Your task to perform on an android device: turn pop-ups on in chrome Image 0: 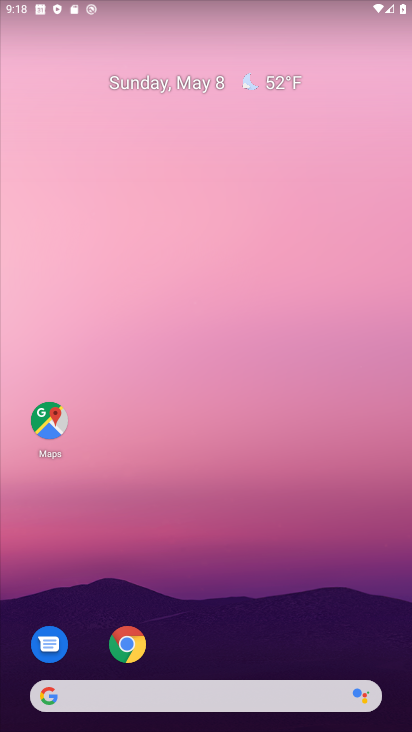
Step 0: drag from (188, 659) to (250, 233)
Your task to perform on an android device: turn pop-ups on in chrome Image 1: 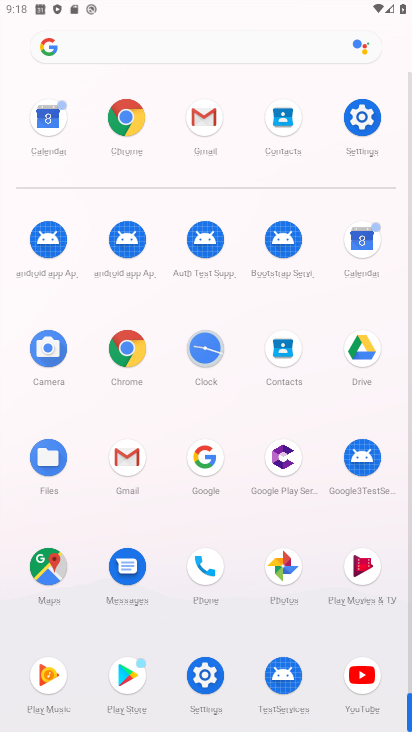
Step 1: drag from (232, 682) to (237, 231)
Your task to perform on an android device: turn pop-ups on in chrome Image 2: 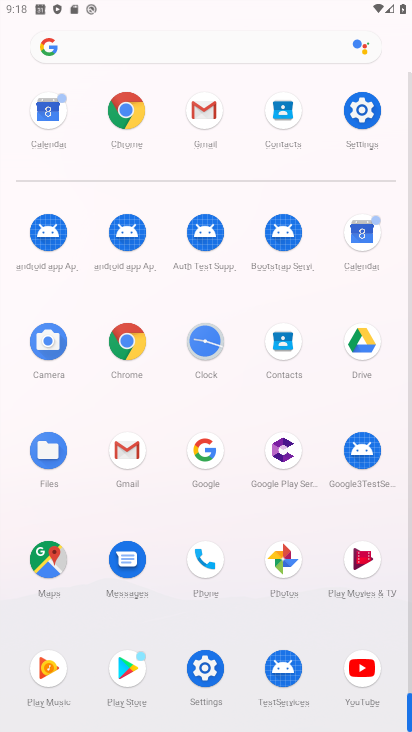
Step 2: drag from (151, 671) to (171, 291)
Your task to perform on an android device: turn pop-ups on in chrome Image 3: 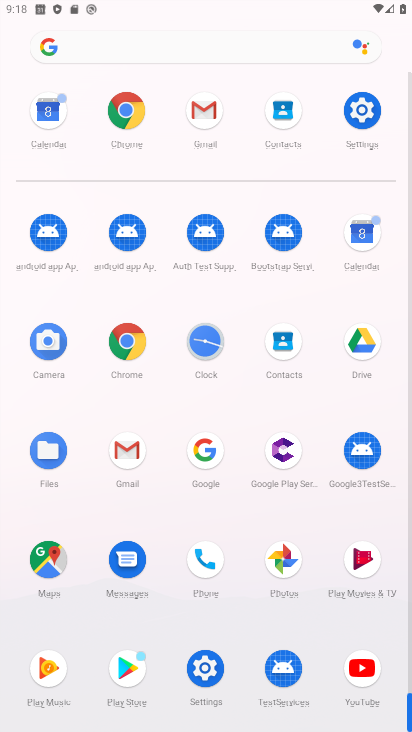
Step 3: click (132, 349)
Your task to perform on an android device: turn pop-ups on in chrome Image 4: 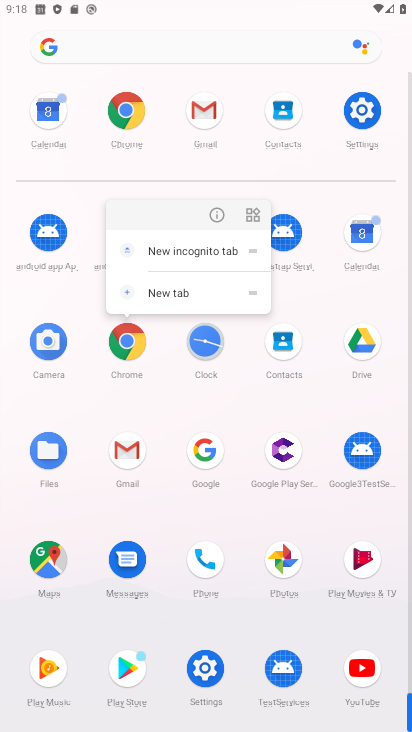
Step 4: click (219, 211)
Your task to perform on an android device: turn pop-ups on in chrome Image 5: 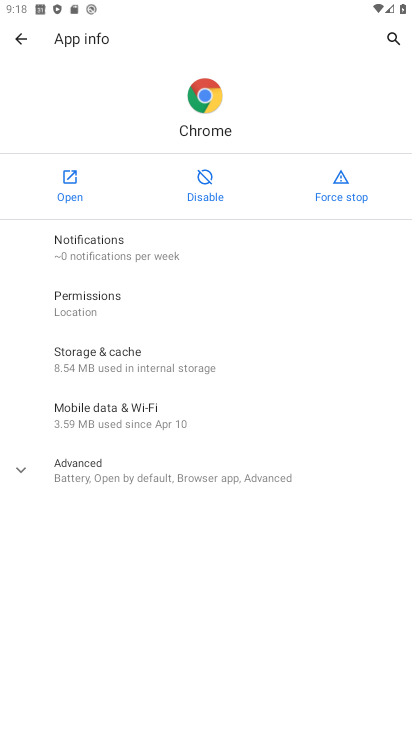
Step 5: click (70, 193)
Your task to perform on an android device: turn pop-ups on in chrome Image 6: 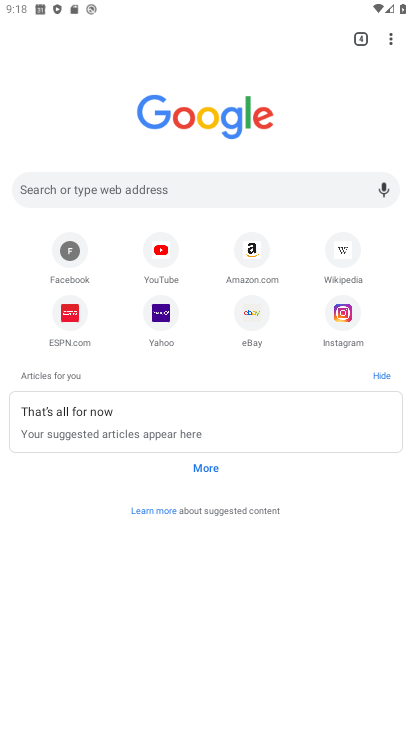
Step 6: drag from (390, 36) to (276, 372)
Your task to perform on an android device: turn pop-ups on in chrome Image 7: 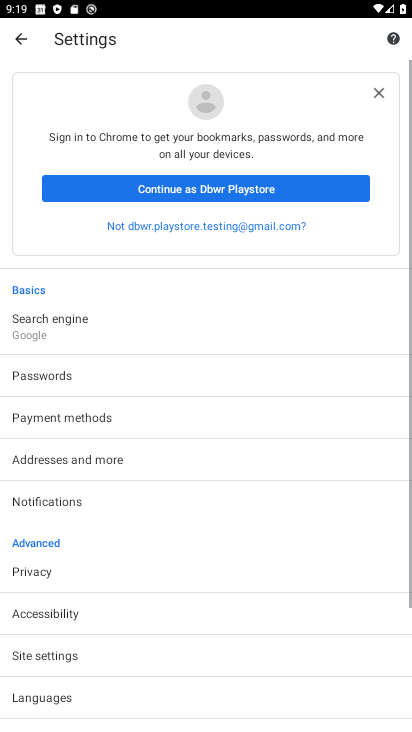
Step 7: drag from (142, 585) to (263, 163)
Your task to perform on an android device: turn pop-ups on in chrome Image 8: 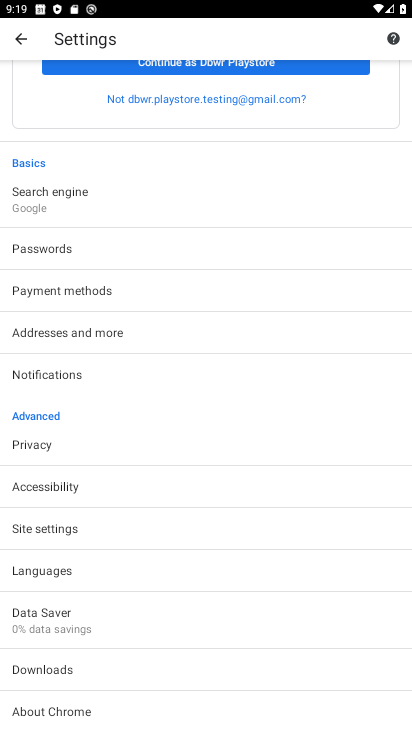
Step 8: click (84, 526)
Your task to perform on an android device: turn pop-ups on in chrome Image 9: 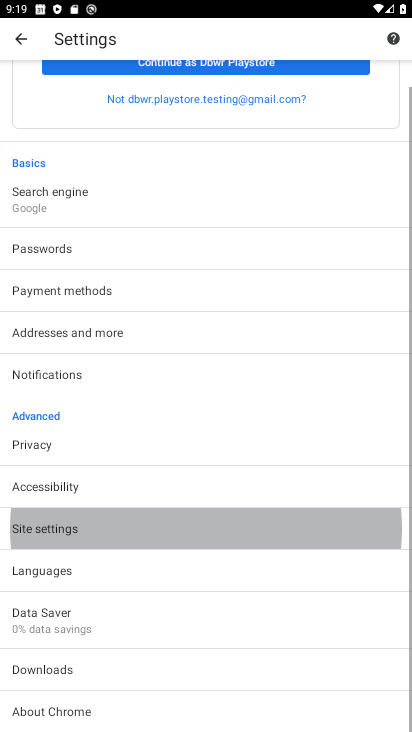
Step 9: click (84, 526)
Your task to perform on an android device: turn pop-ups on in chrome Image 10: 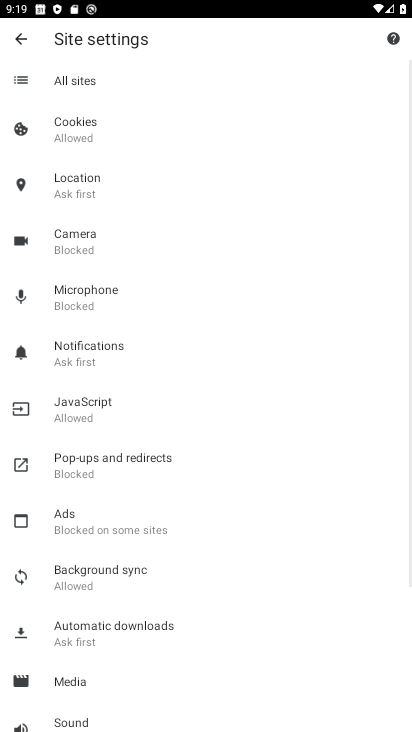
Step 10: drag from (226, 585) to (310, 179)
Your task to perform on an android device: turn pop-ups on in chrome Image 11: 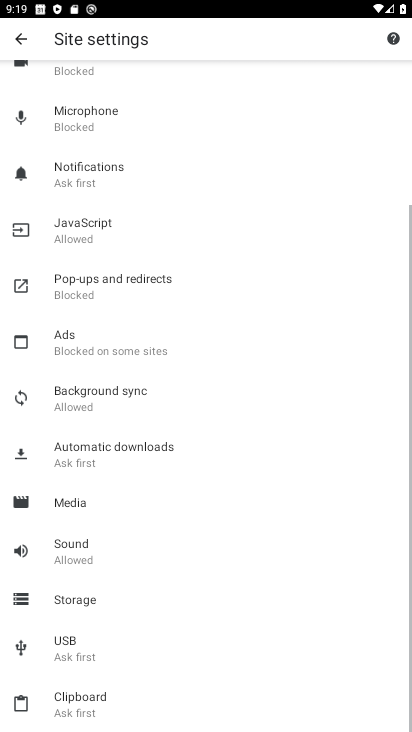
Step 11: click (138, 282)
Your task to perform on an android device: turn pop-ups on in chrome Image 12: 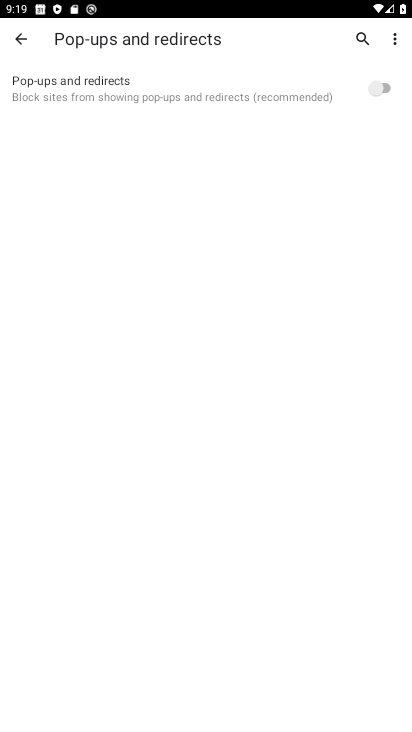
Step 12: click (381, 82)
Your task to perform on an android device: turn pop-ups on in chrome Image 13: 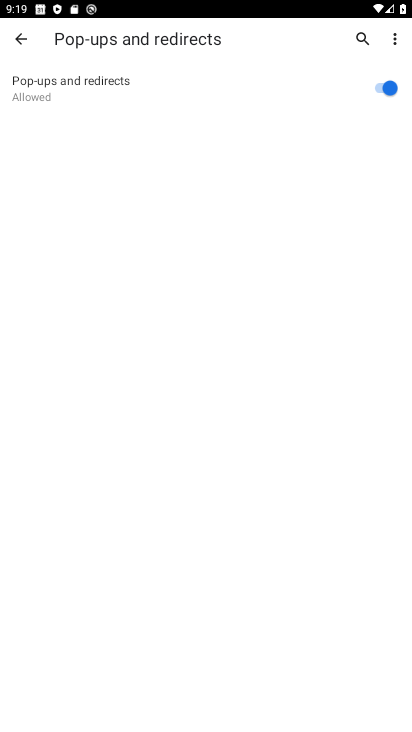
Step 13: task complete